Your task to perform on an android device: Show me recent news Image 0: 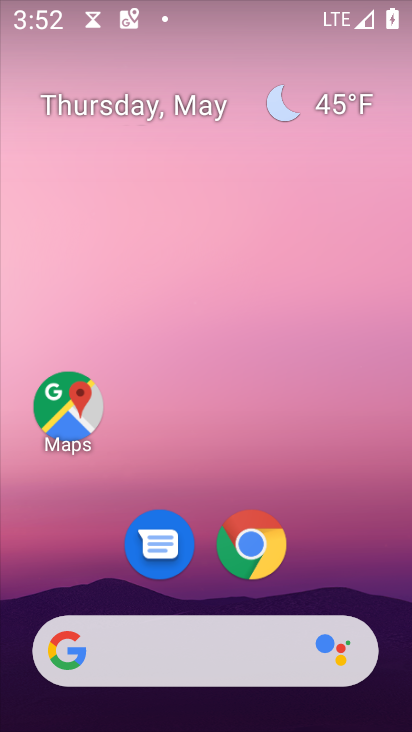
Step 0: drag from (319, 590) to (232, 167)
Your task to perform on an android device: Show me recent news Image 1: 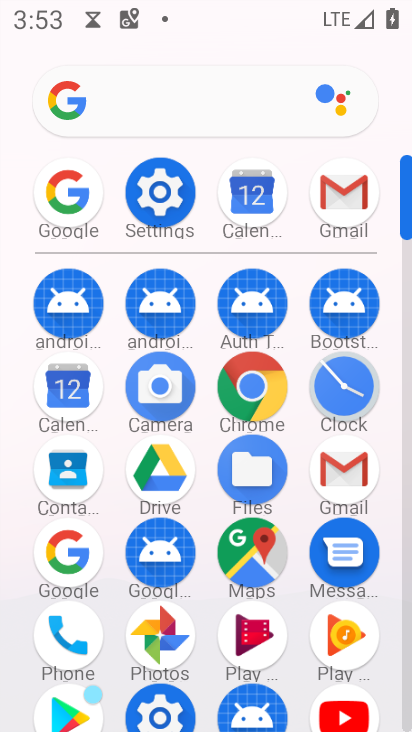
Step 1: click (189, 101)
Your task to perform on an android device: Show me recent news Image 2: 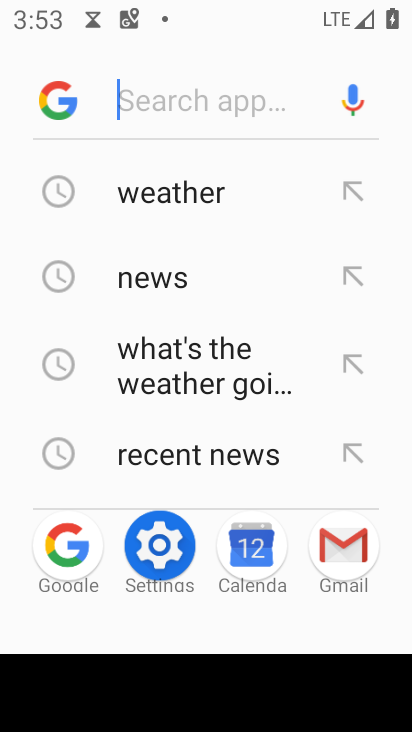
Step 2: type "recent news"
Your task to perform on an android device: Show me recent news Image 3: 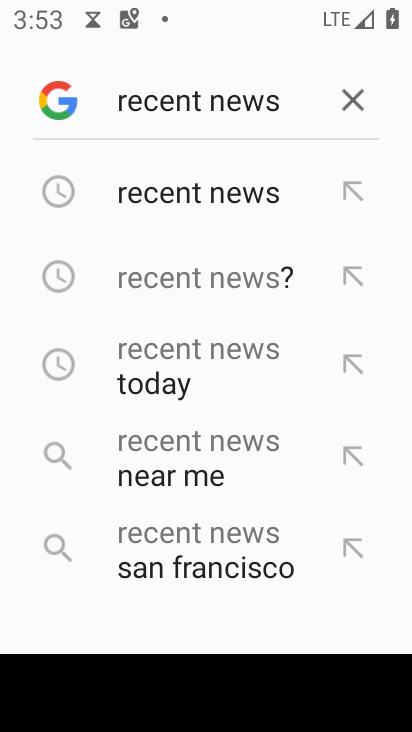
Step 3: click (196, 212)
Your task to perform on an android device: Show me recent news Image 4: 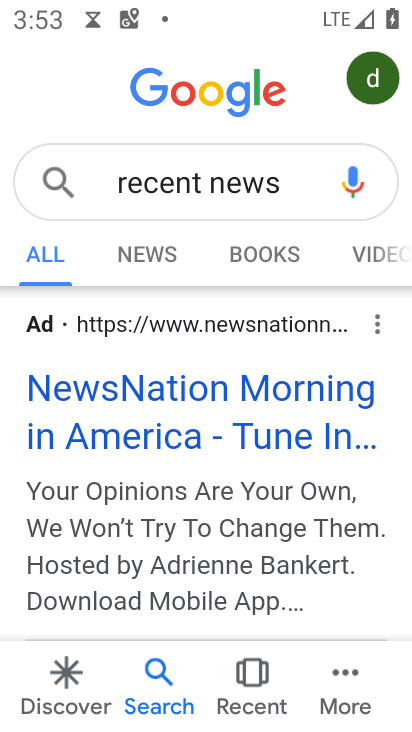
Step 4: click (166, 250)
Your task to perform on an android device: Show me recent news Image 5: 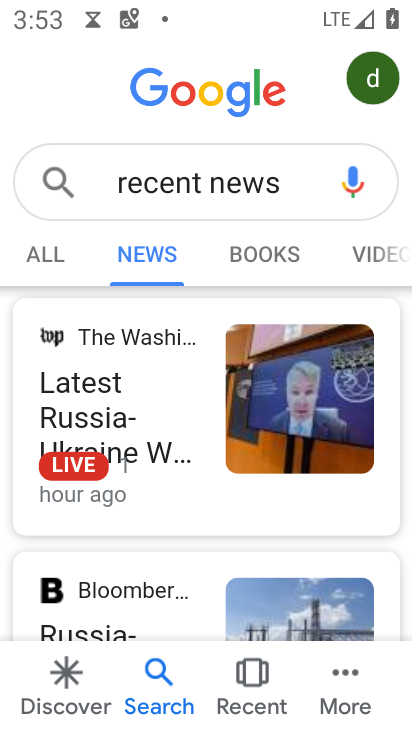
Step 5: task complete